Your task to perform on an android device: Go to Reddit.com Image 0: 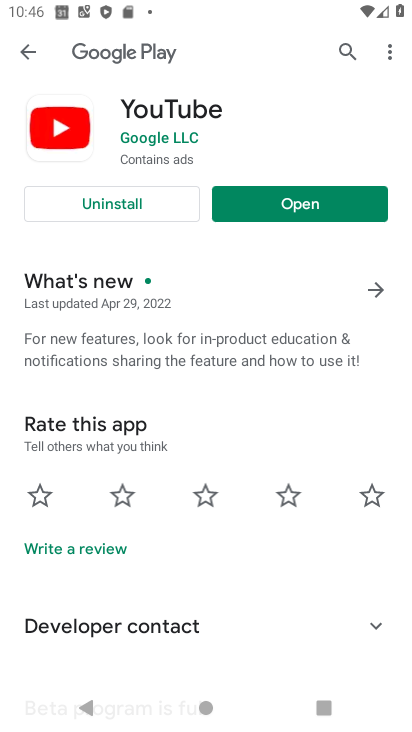
Step 0: press home button
Your task to perform on an android device: Go to Reddit.com Image 1: 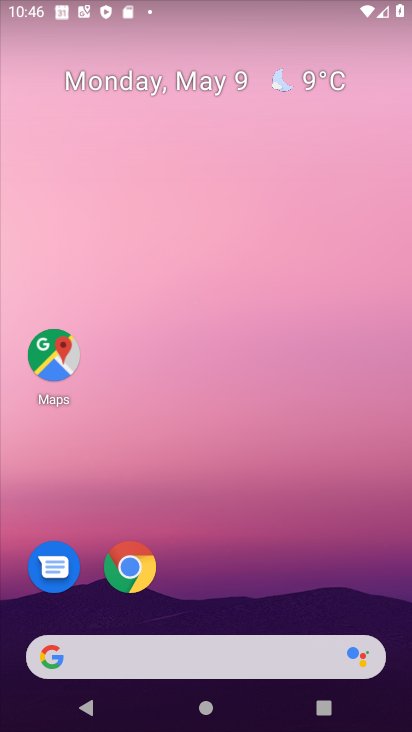
Step 1: click (129, 562)
Your task to perform on an android device: Go to Reddit.com Image 2: 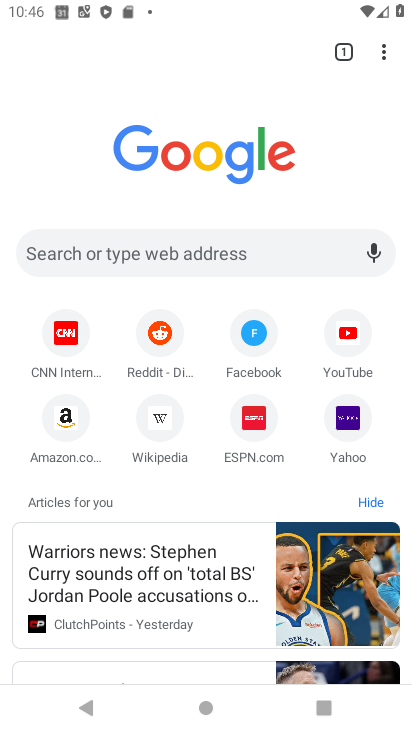
Step 2: click (160, 328)
Your task to perform on an android device: Go to Reddit.com Image 3: 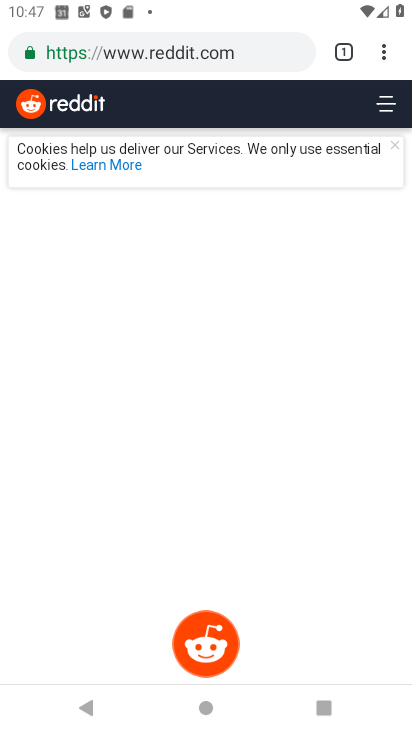
Step 3: task complete